Your task to perform on an android device: set the timer Image 0: 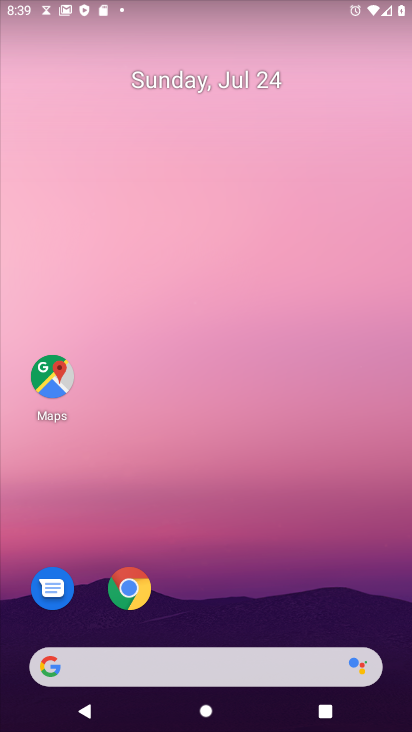
Step 0: drag from (211, 605) to (176, 26)
Your task to perform on an android device: set the timer Image 1: 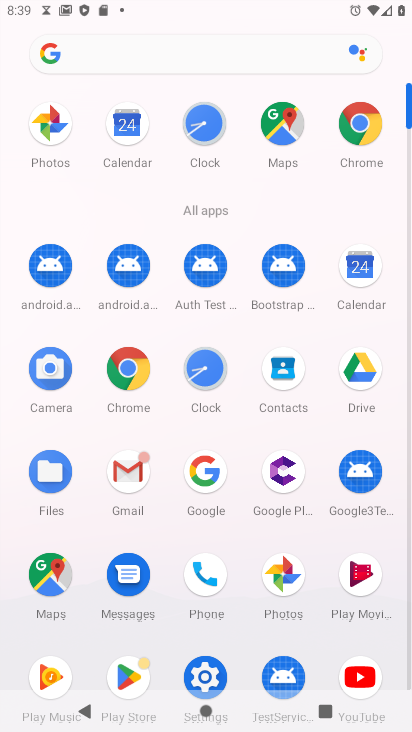
Step 1: click (204, 120)
Your task to perform on an android device: set the timer Image 2: 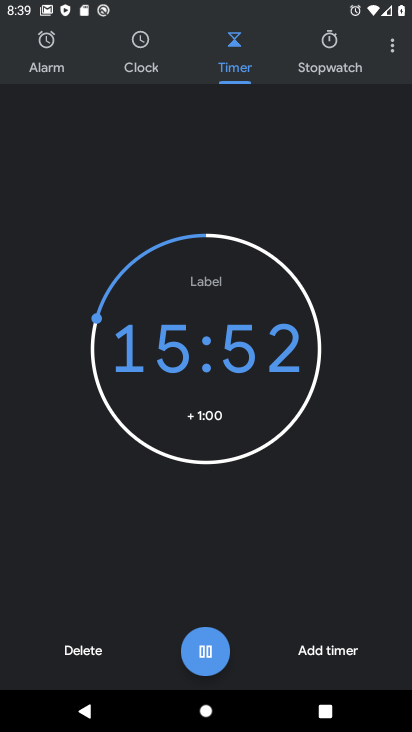
Step 2: task complete